Your task to perform on an android device: empty trash in the gmail app Image 0: 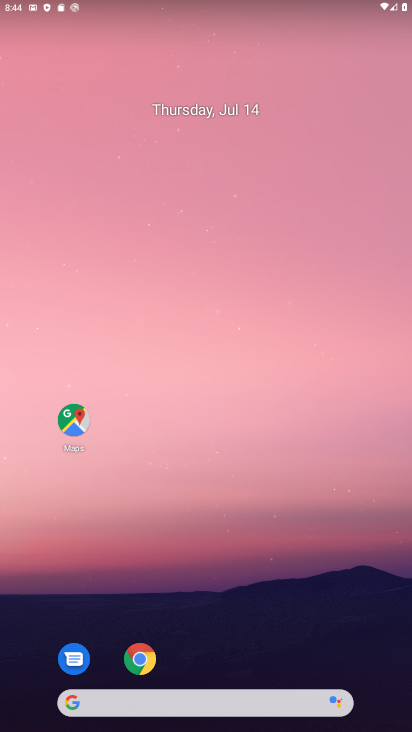
Step 0: press home button
Your task to perform on an android device: empty trash in the gmail app Image 1: 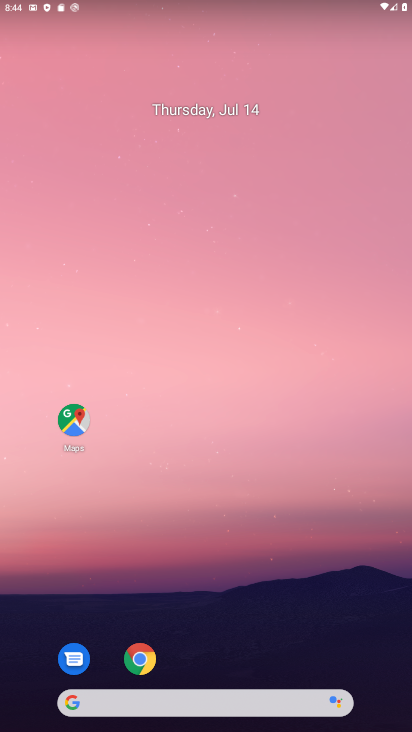
Step 1: drag from (278, 632) to (317, 52)
Your task to perform on an android device: empty trash in the gmail app Image 2: 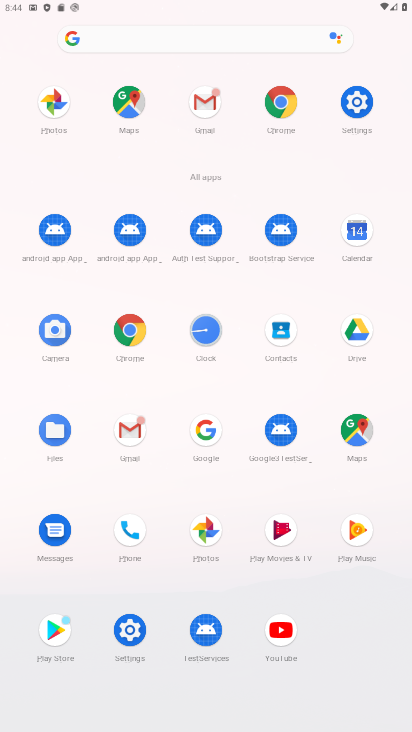
Step 2: click (211, 95)
Your task to perform on an android device: empty trash in the gmail app Image 3: 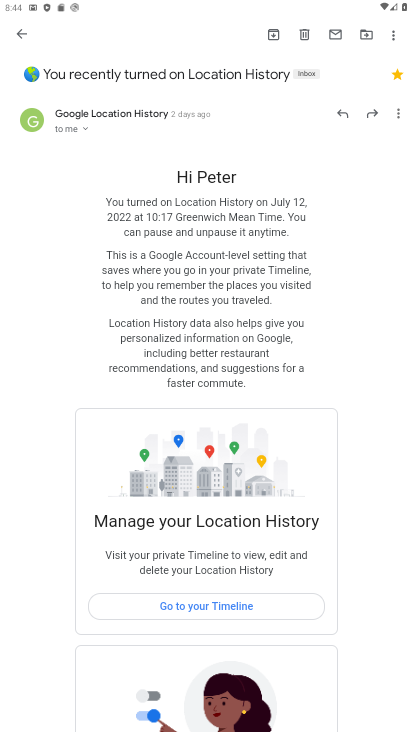
Step 3: click (22, 34)
Your task to perform on an android device: empty trash in the gmail app Image 4: 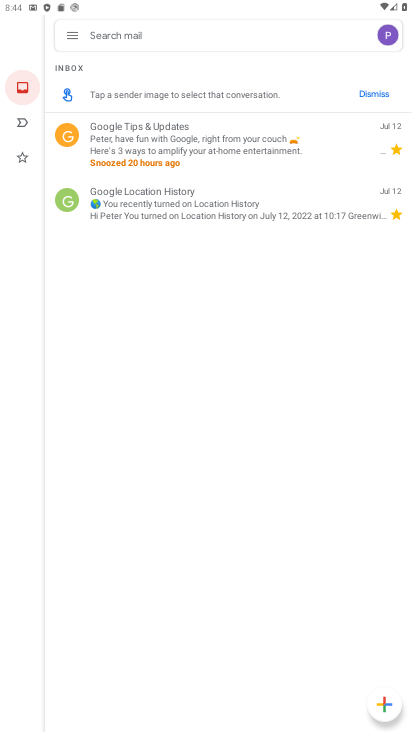
Step 4: click (68, 35)
Your task to perform on an android device: empty trash in the gmail app Image 5: 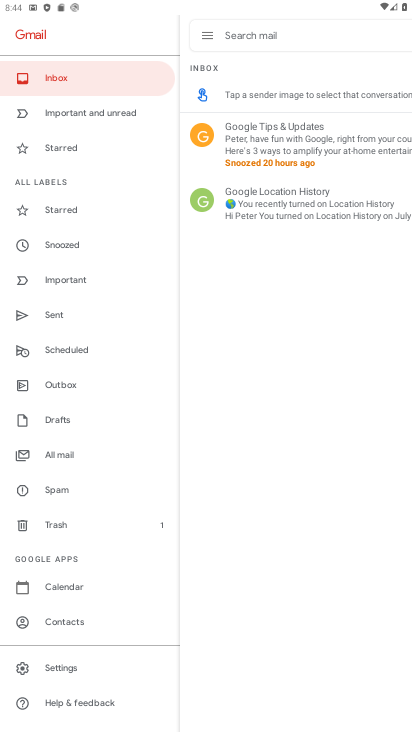
Step 5: click (86, 521)
Your task to perform on an android device: empty trash in the gmail app Image 6: 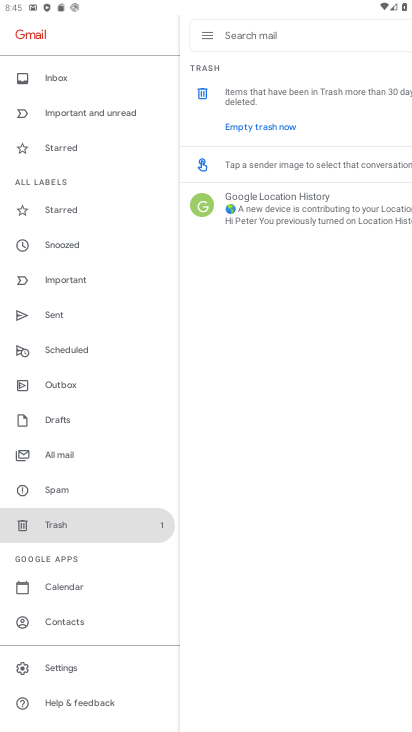
Step 6: click (270, 119)
Your task to perform on an android device: empty trash in the gmail app Image 7: 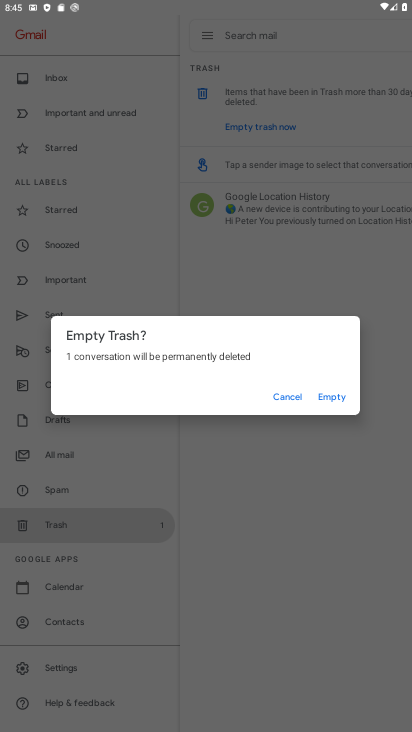
Step 7: click (342, 394)
Your task to perform on an android device: empty trash in the gmail app Image 8: 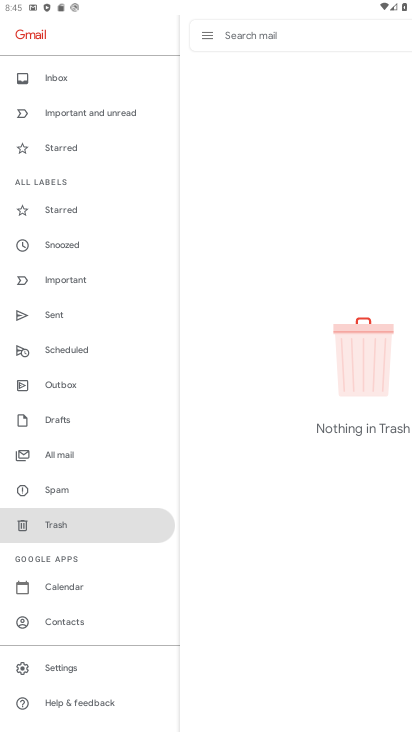
Step 8: task complete